Your task to perform on an android device: turn off sleep mode Image 0: 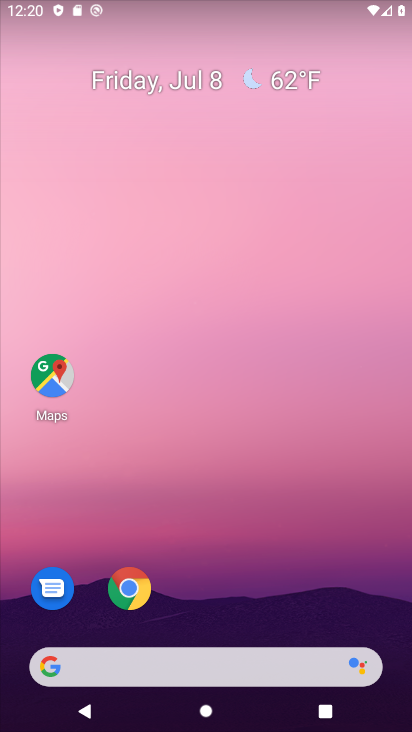
Step 0: drag from (173, 200) to (152, 11)
Your task to perform on an android device: turn off sleep mode Image 1: 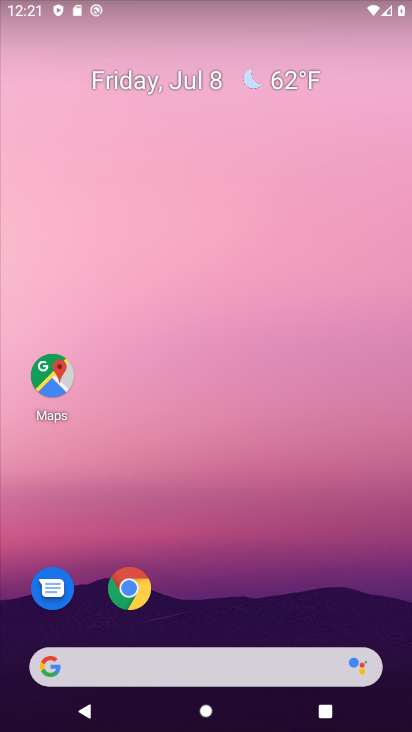
Step 1: drag from (215, 256) to (230, 98)
Your task to perform on an android device: turn off sleep mode Image 2: 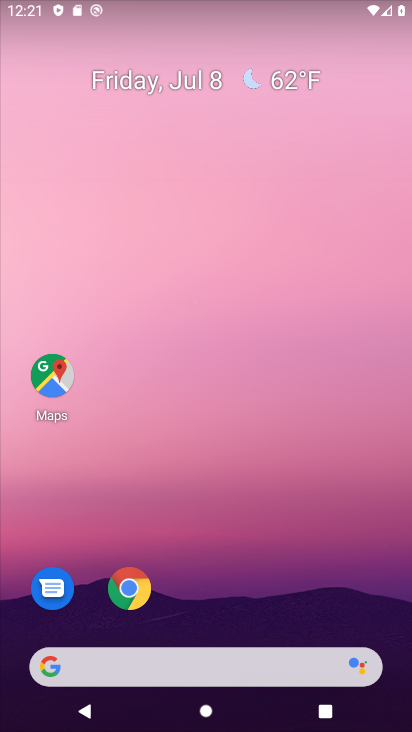
Step 2: drag from (199, 575) to (279, 290)
Your task to perform on an android device: turn off sleep mode Image 3: 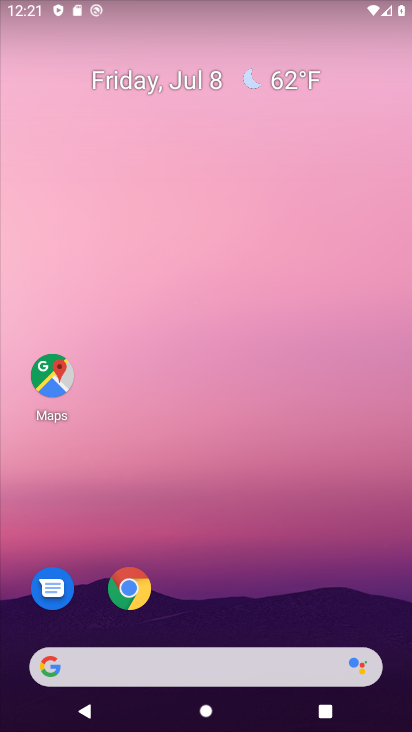
Step 3: drag from (194, 598) to (181, 11)
Your task to perform on an android device: turn off sleep mode Image 4: 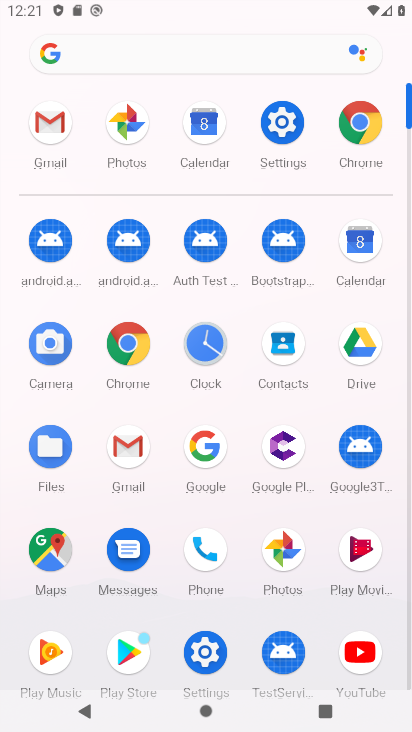
Step 4: click (291, 105)
Your task to perform on an android device: turn off sleep mode Image 5: 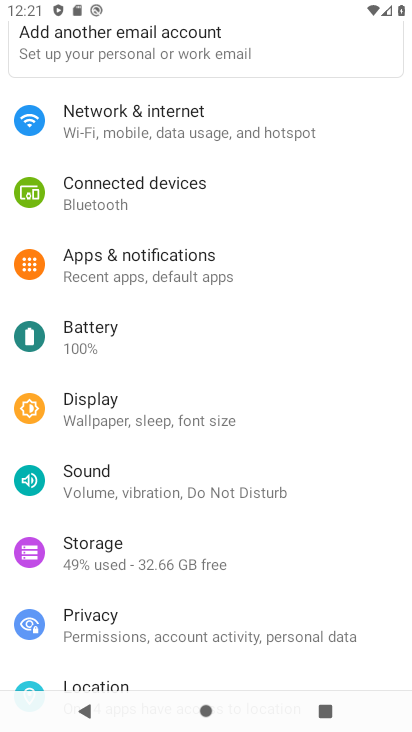
Step 5: task complete